Your task to perform on an android device: Open maps Image 0: 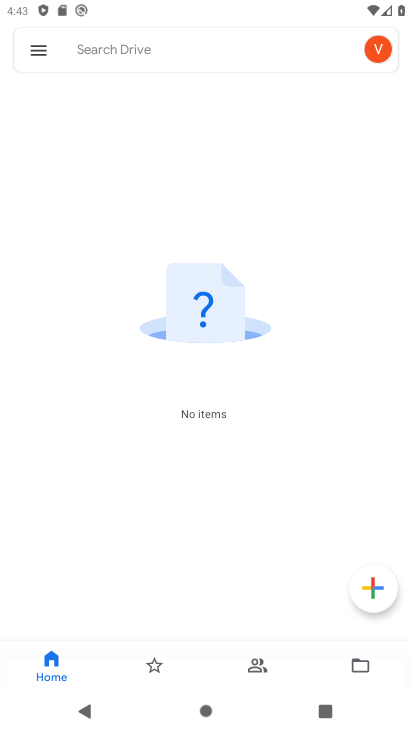
Step 0: press home button
Your task to perform on an android device: Open maps Image 1: 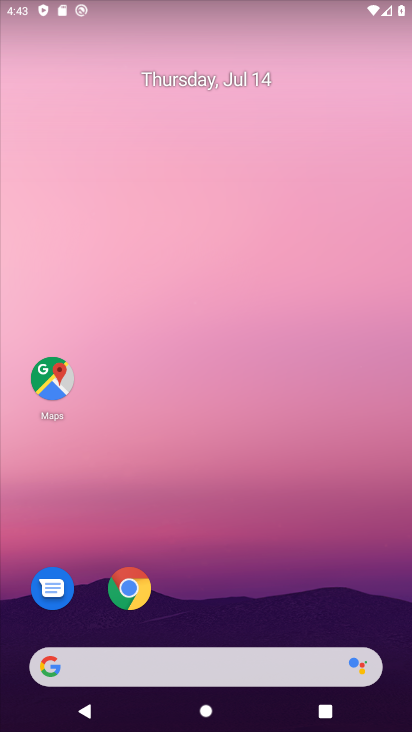
Step 1: drag from (258, 646) to (318, 266)
Your task to perform on an android device: Open maps Image 2: 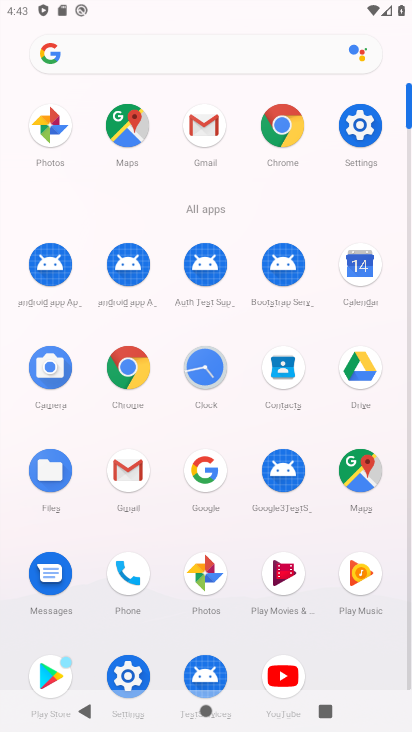
Step 2: click (360, 476)
Your task to perform on an android device: Open maps Image 3: 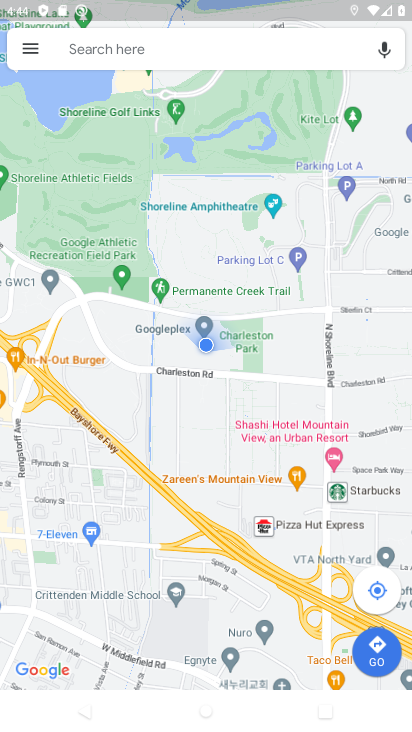
Step 3: task complete